Your task to perform on an android device: all mails in gmail Image 0: 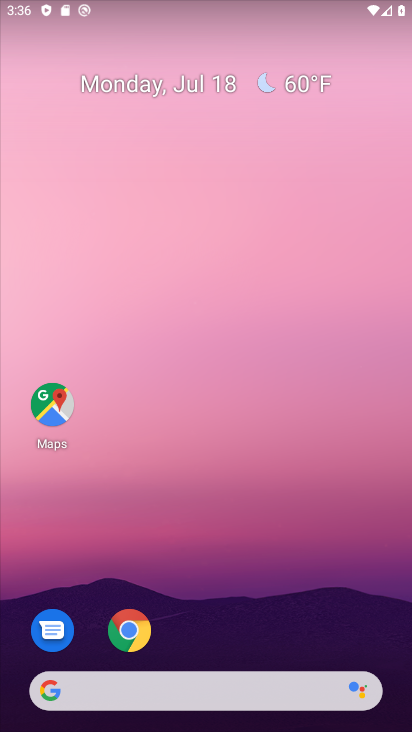
Step 0: drag from (284, 578) to (169, 24)
Your task to perform on an android device: all mails in gmail Image 1: 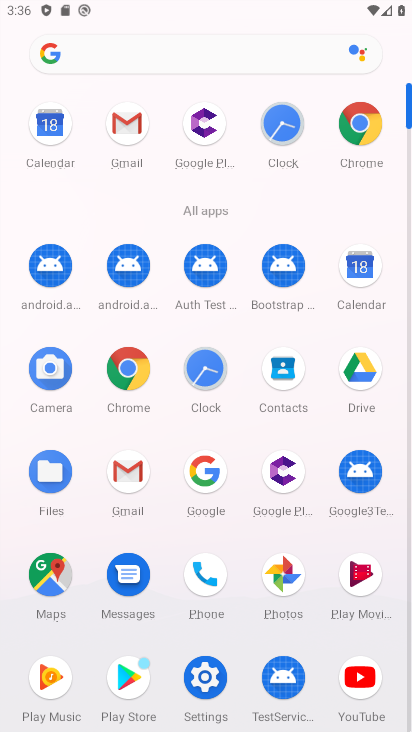
Step 1: click (130, 470)
Your task to perform on an android device: all mails in gmail Image 2: 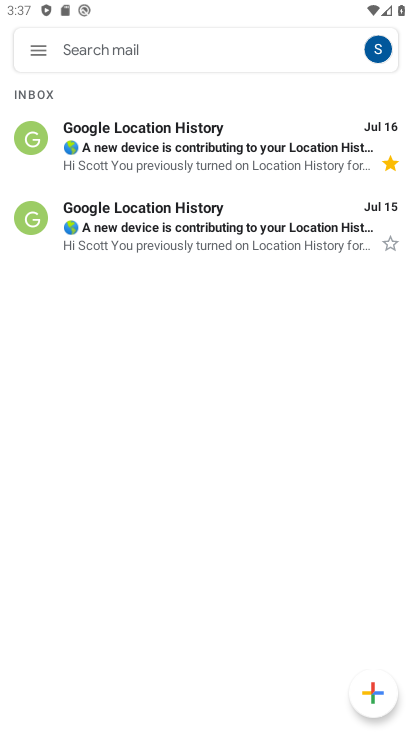
Step 2: click (45, 54)
Your task to perform on an android device: all mails in gmail Image 3: 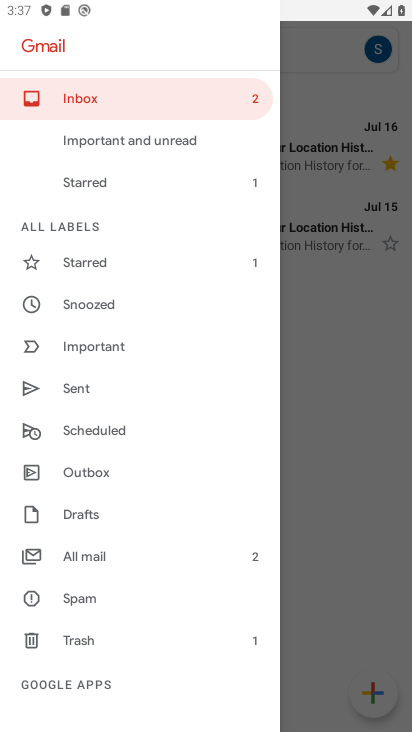
Step 3: click (105, 552)
Your task to perform on an android device: all mails in gmail Image 4: 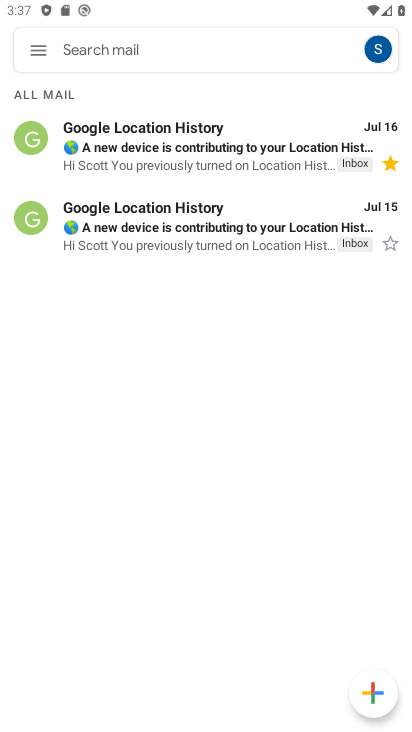
Step 4: task complete